Your task to perform on an android device: change the upload size in google photos Image 0: 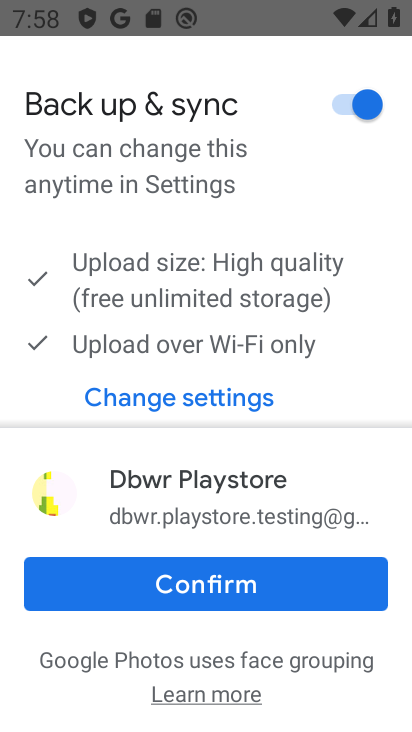
Step 0: click (231, 573)
Your task to perform on an android device: change the upload size in google photos Image 1: 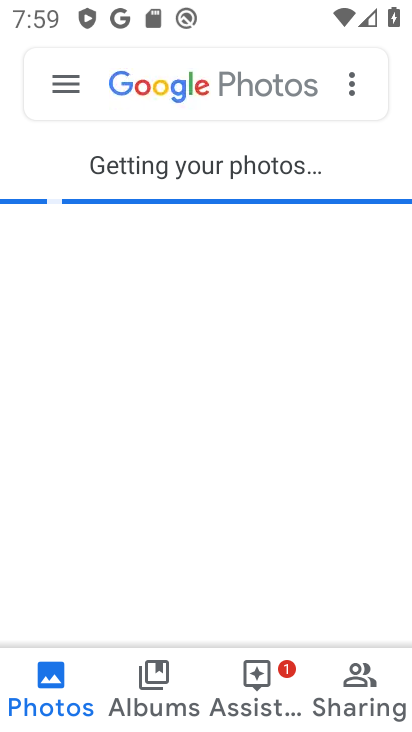
Step 1: click (60, 90)
Your task to perform on an android device: change the upload size in google photos Image 2: 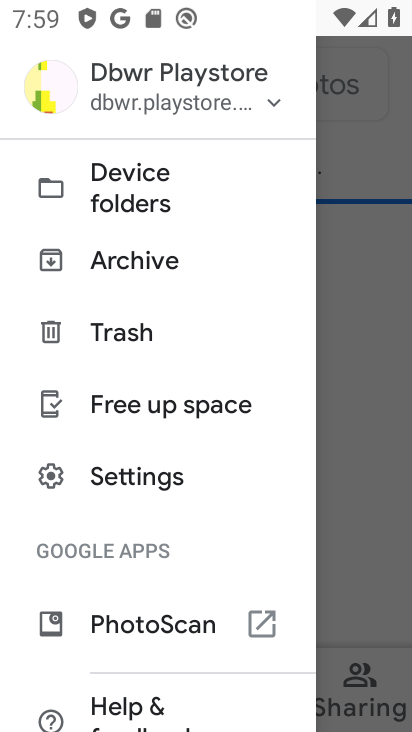
Step 2: click (155, 470)
Your task to perform on an android device: change the upload size in google photos Image 3: 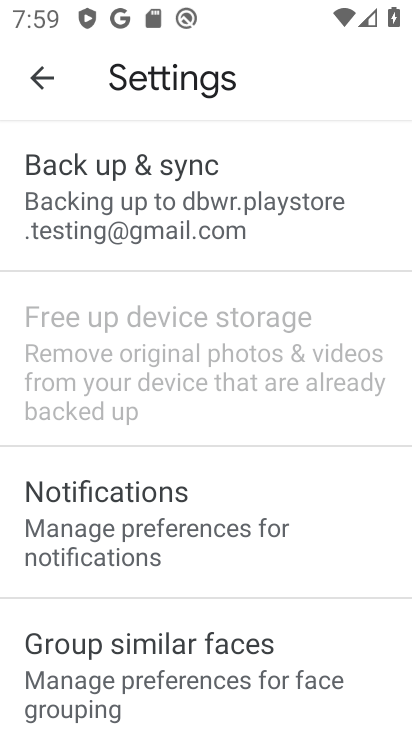
Step 3: click (229, 197)
Your task to perform on an android device: change the upload size in google photos Image 4: 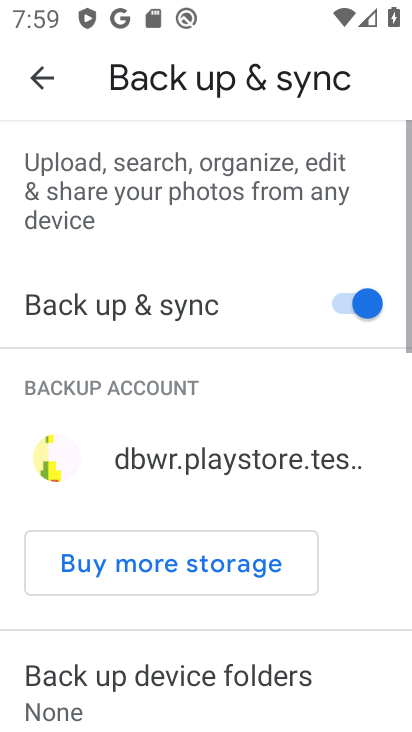
Step 4: drag from (333, 604) to (307, 351)
Your task to perform on an android device: change the upload size in google photos Image 5: 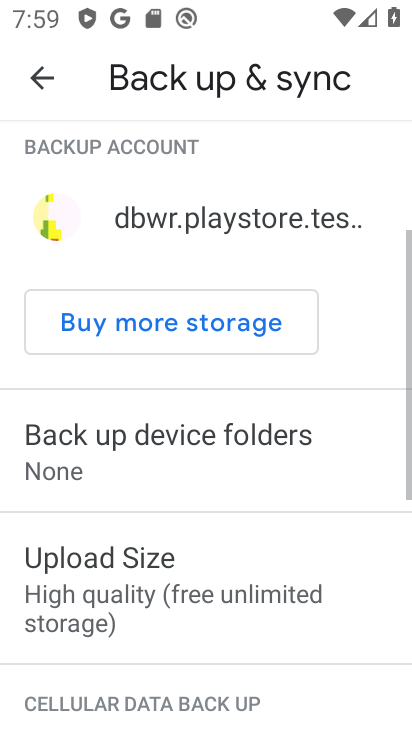
Step 5: click (177, 607)
Your task to perform on an android device: change the upload size in google photos Image 6: 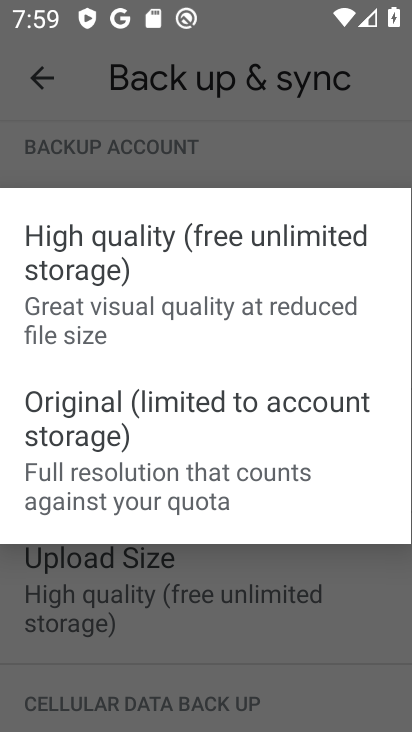
Step 6: click (117, 422)
Your task to perform on an android device: change the upload size in google photos Image 7: 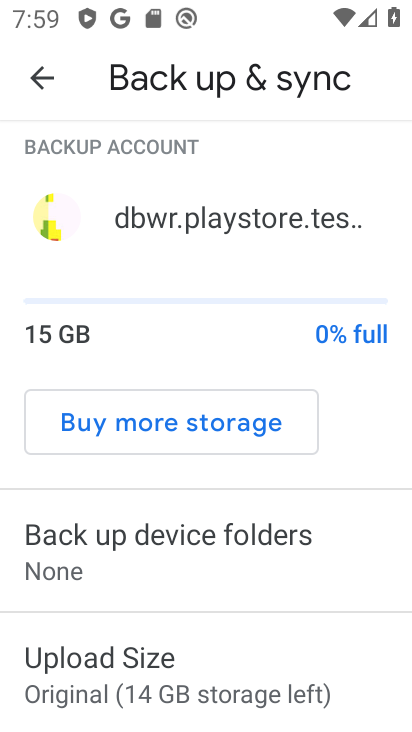
Step 7: task complete